Your task to perform on an android device: Go to settings Image 0: 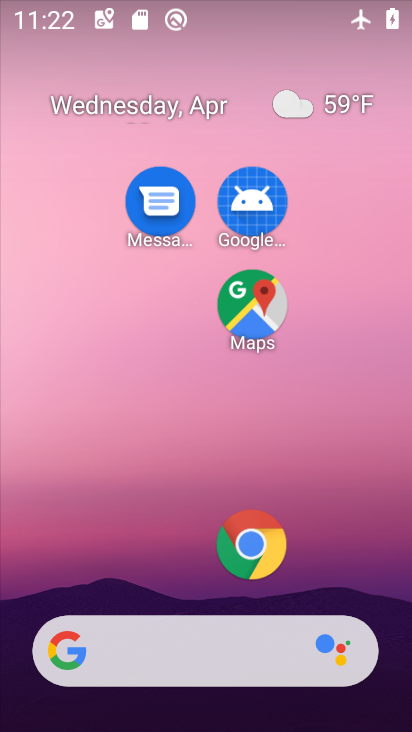
Step 0: drag from (151, 578) to (171, 58)
Your task to perform on an android device: Go to settings Image 1: 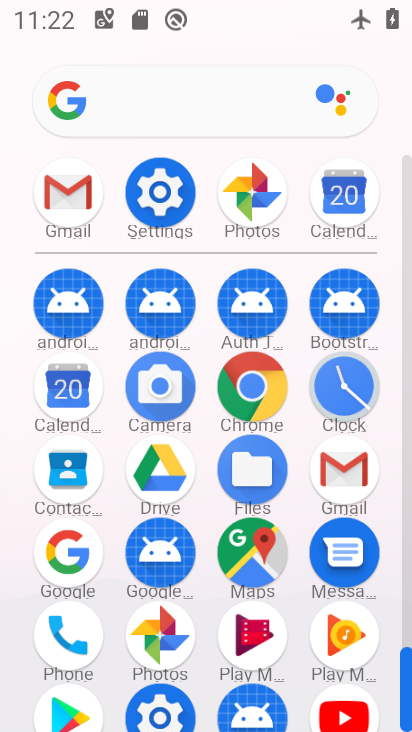
Step 1: click (174, 205)
Your task to perform on an android device: Go to settings Image 2: 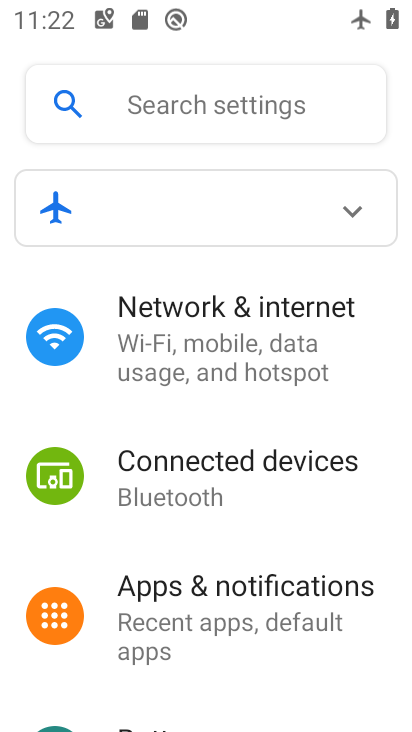
Step 2: task complete